Your task to perform on an android device: Is it going to rain this weekend? Image 0: 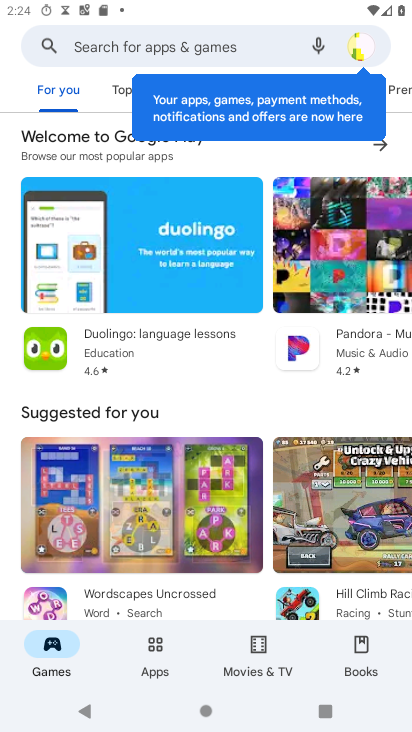
Step 0: press home button
Your task to perform on an android device: Is it going to rain this weekend? Image 1: 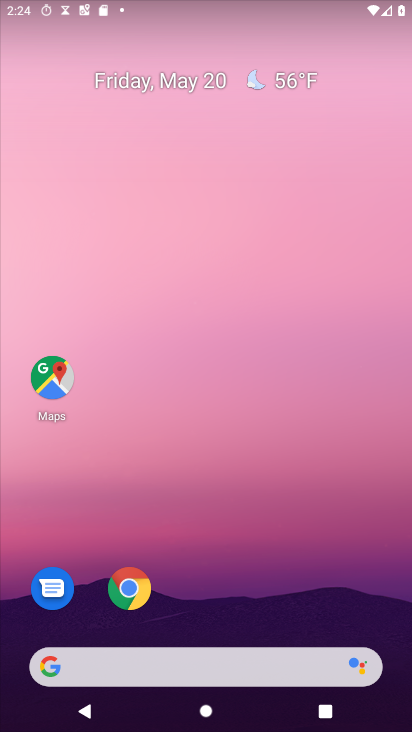
Step 1: click (177, 662)
Your task to perform on an android device: Is it going to rain this weekend? Image 2: 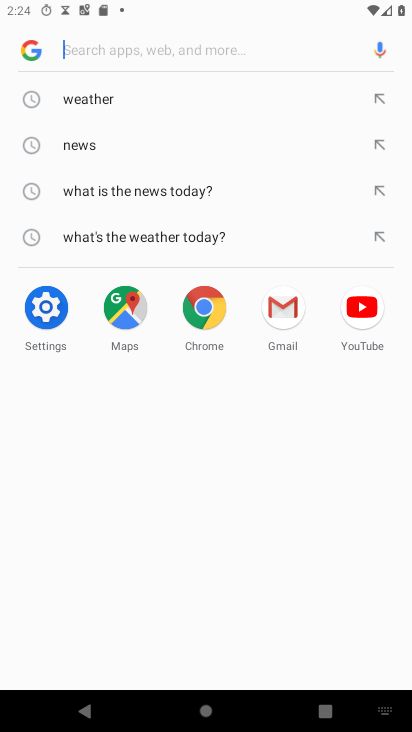
Step 2: click (96, 93)
Your task to perform on an android device: Is it going to rain this weekend? Image 3: 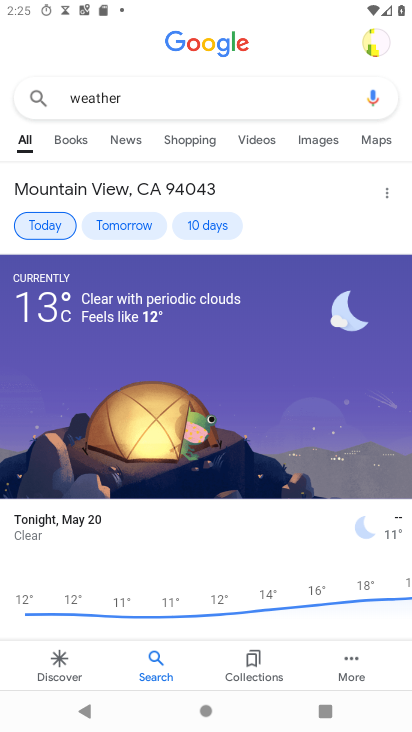
Step 3: click (198, 225)
Your task to perform on an android device: Is it going to rain this weekend? Image 4: 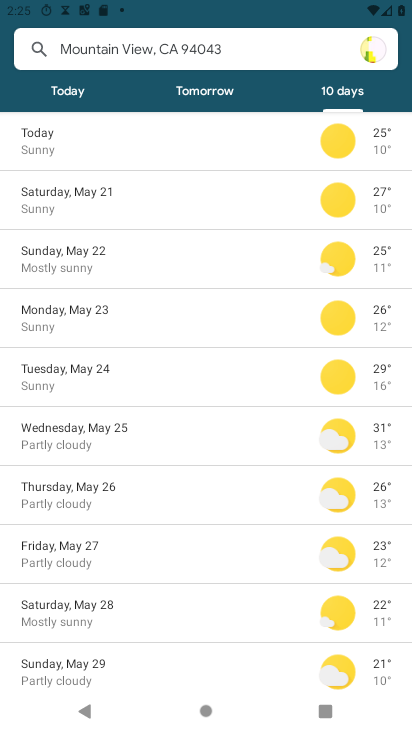
Step 4: task complete